Your task to perform on an android device: Search for the new Apple Watch on Best Buy Image 0: 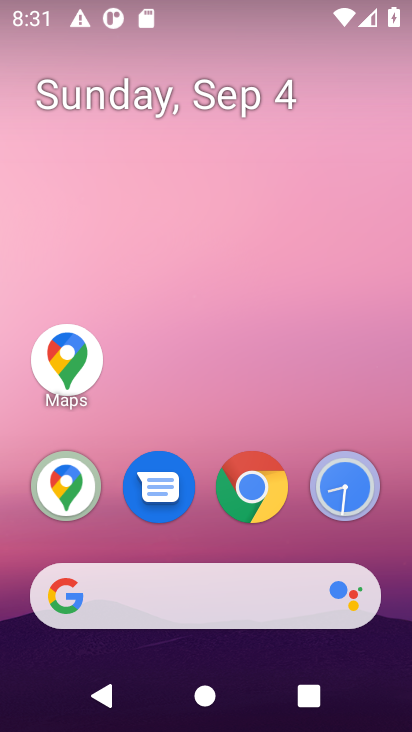
Step 0: click (262, 478)
Your task to perform on an android device: Search for the new Apple Watch on Best Buy Image 1: 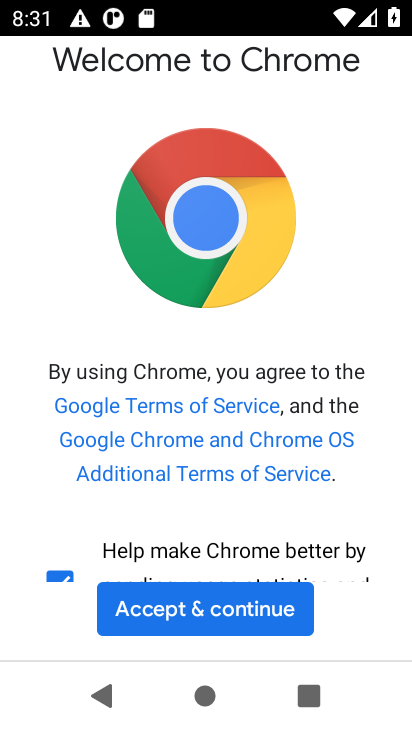
Step 1: click (194, 620)
Your task to perform on an android device: Search for the new Apple Watch on Best Buy Image 2: 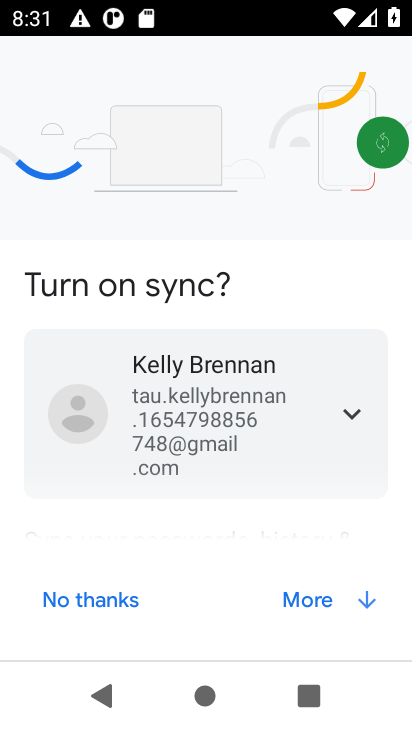
Step 2: click (121, 601)
Your task to perform on an android device: Search for the new Apple Watch on Best Buy Image 3: 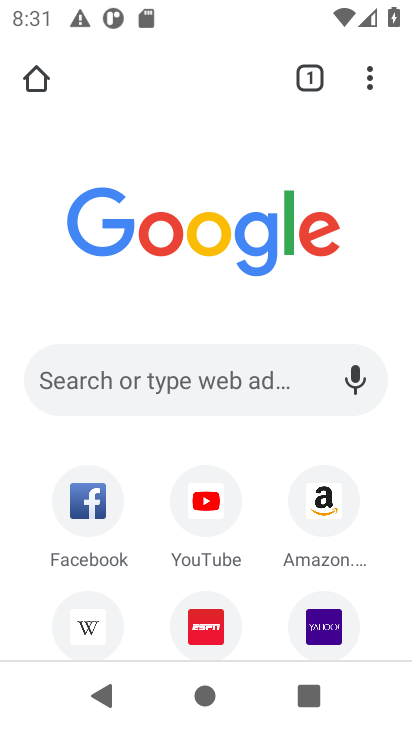
Step 3: click (211, 606)
Your task to perform on an android device: Search for the new Apple Watch on Best Buy Image 4: 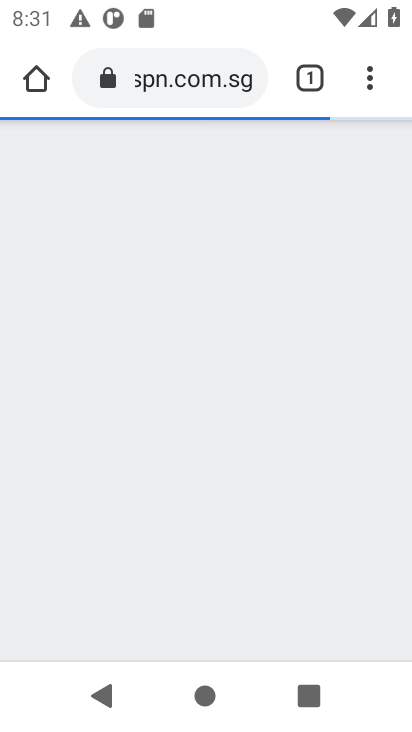
Step 4: task complete